Your task to perform on an android device: Go to sound settings Image 0: 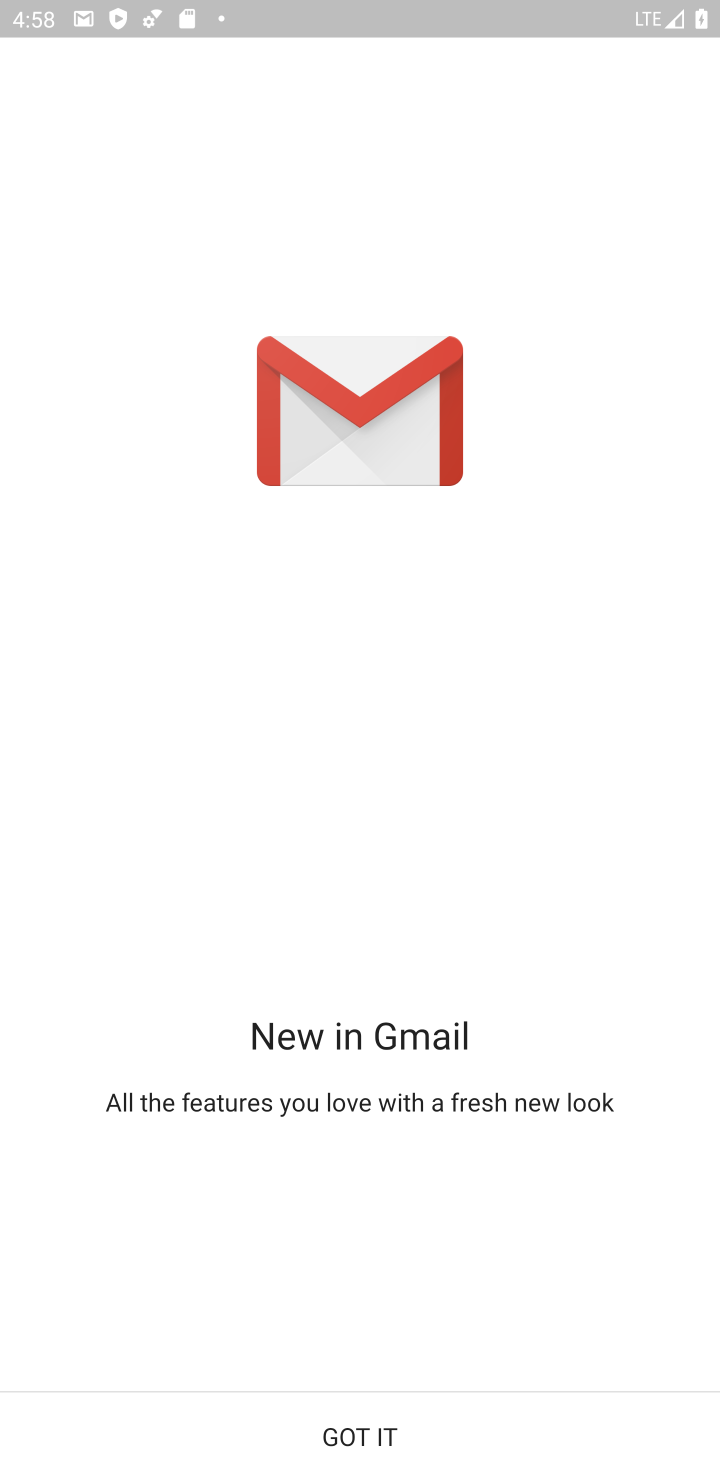
Step 0: press home button
Your task to perform on an android device: Go to sound settings Image 1: 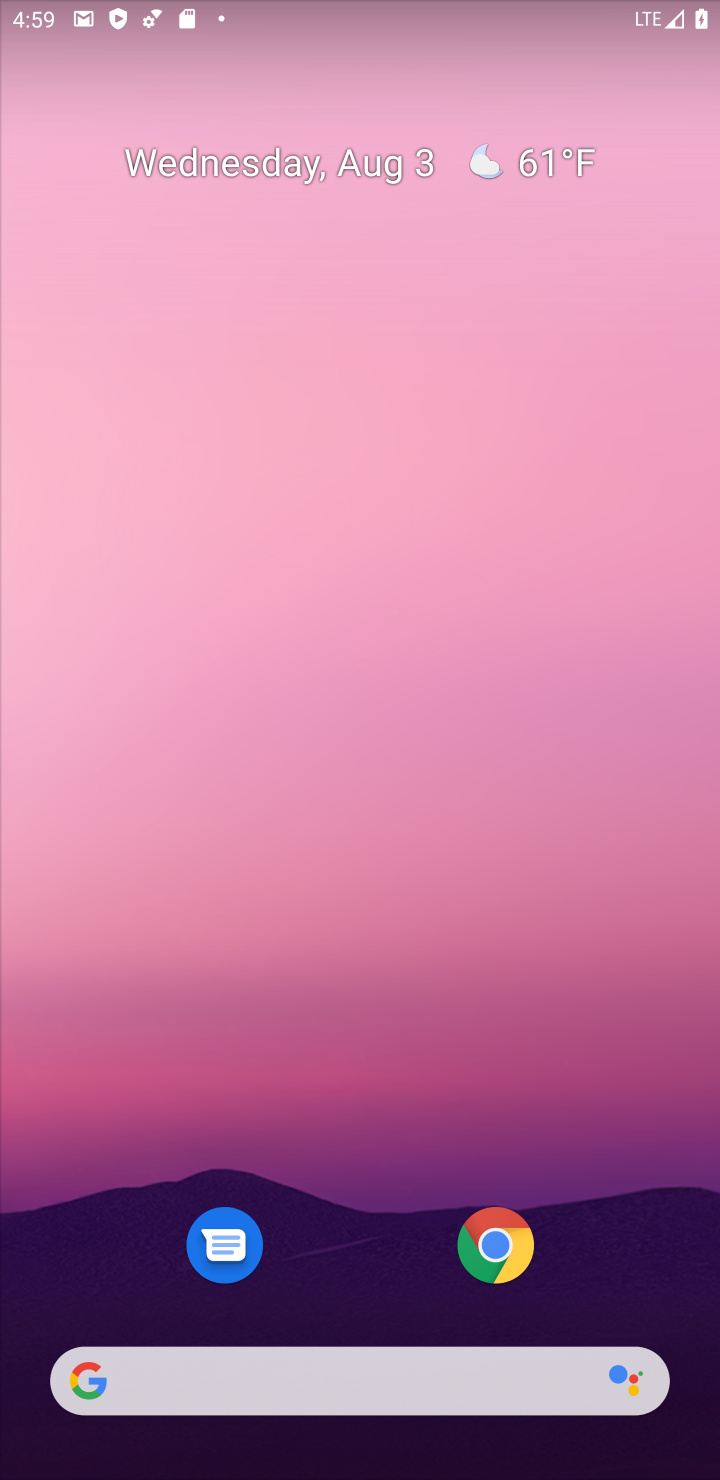
Step 1: drag from (309, 1368) to (357, 316)
Your task to perform on an android device: Go to sound settings Image 2: 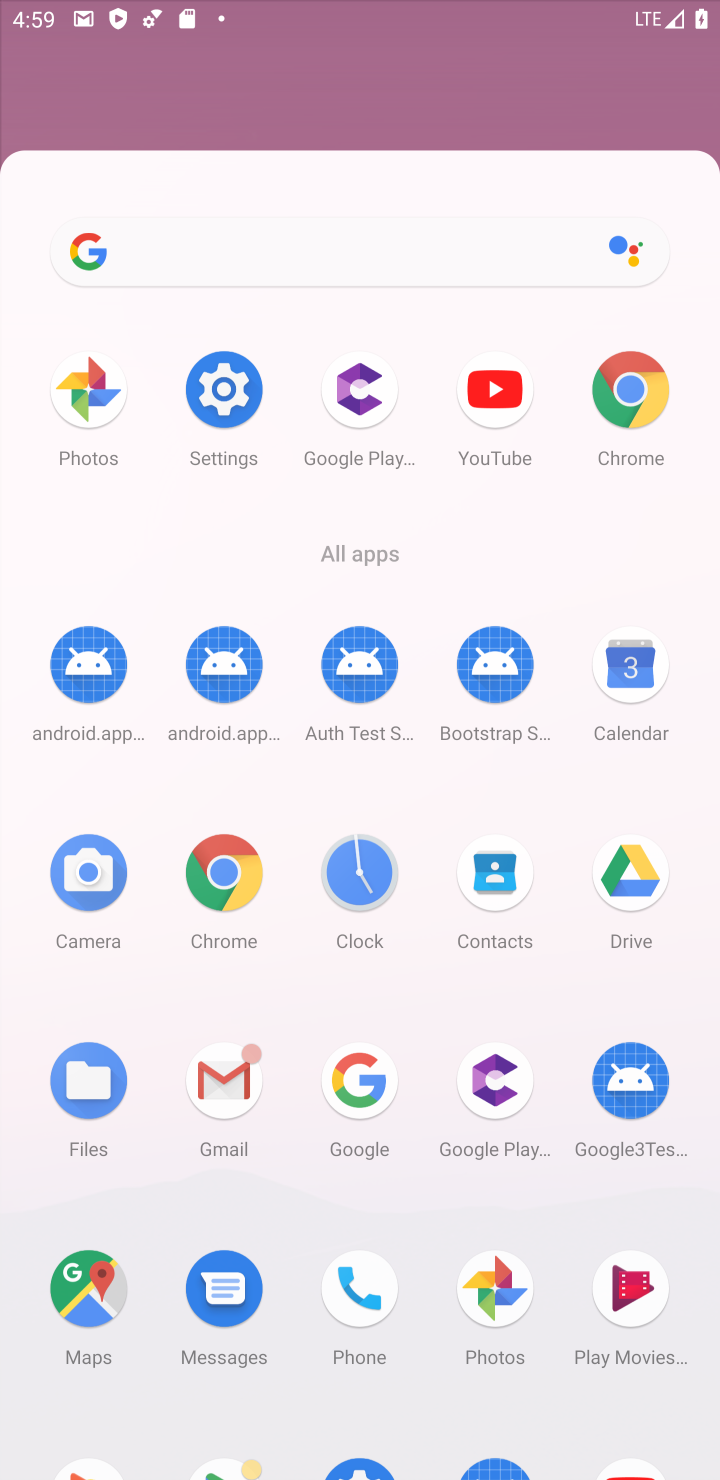
Step 2: drag from (379, 1370) to (344, 617)
Your task to perform on an android device: Go to sound settings Image 3: 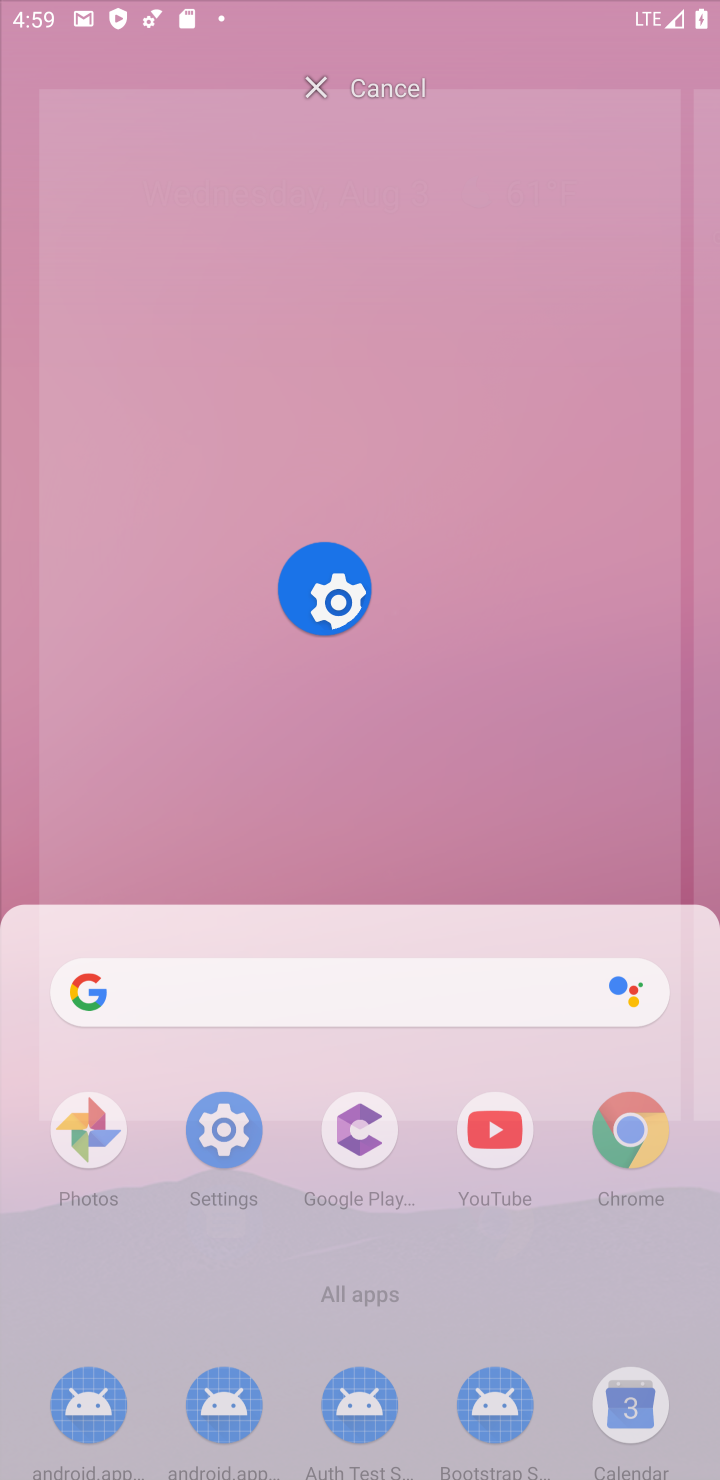
Step 3: click (352, 1318)
Your task to perform on an android device: Go to sound settings Image 4: 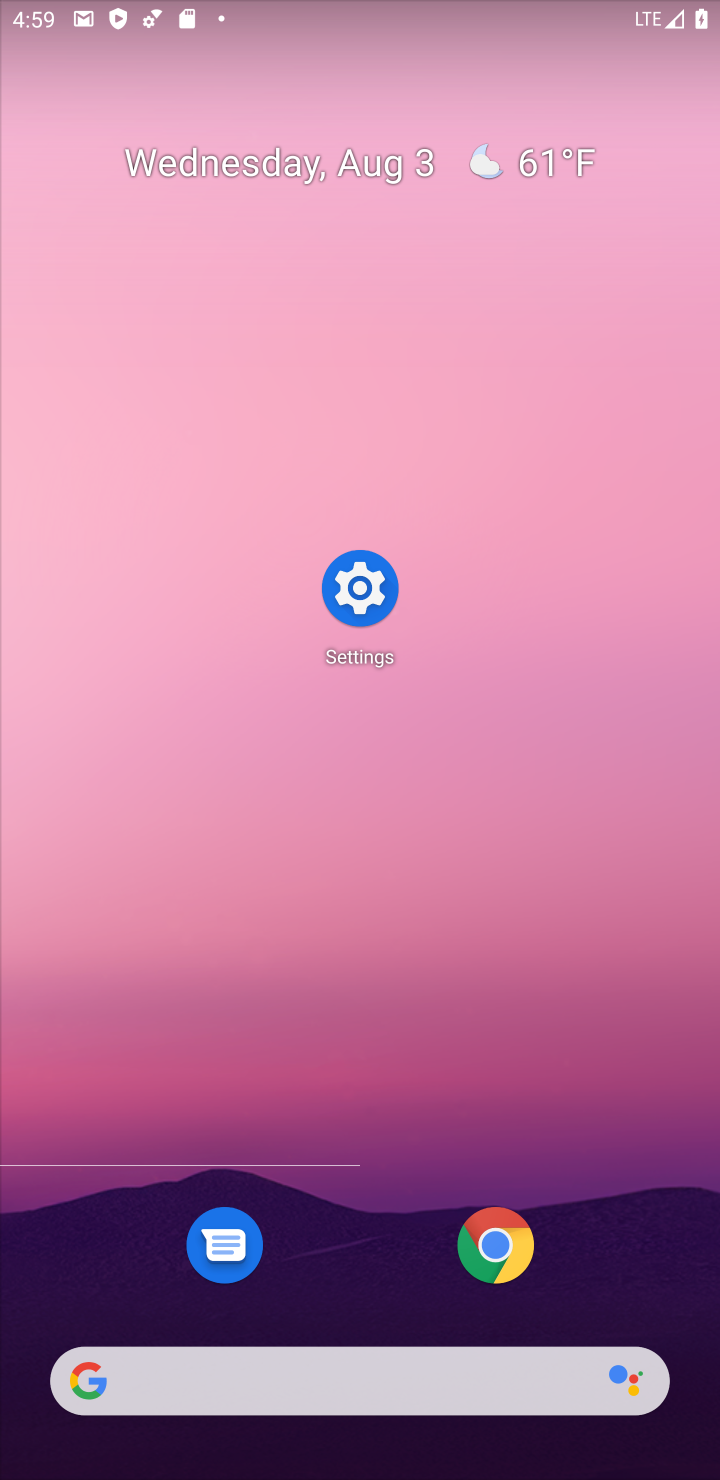
Step 4: click (332, 593)
Your task to perform on an android device: Go to sound settings Image 5: 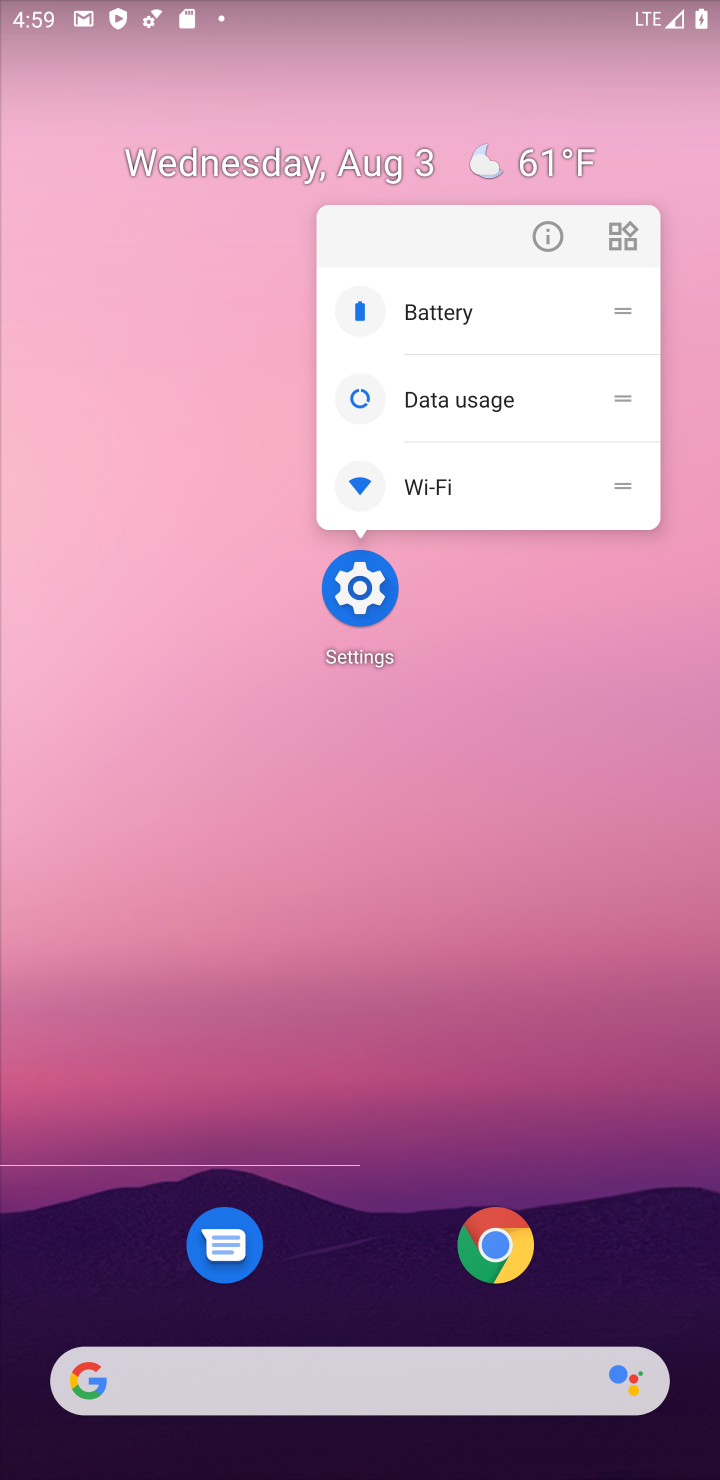
Step 5: click (332, 593)
Your task to perform on an android device: Go to sound settings Image 6: 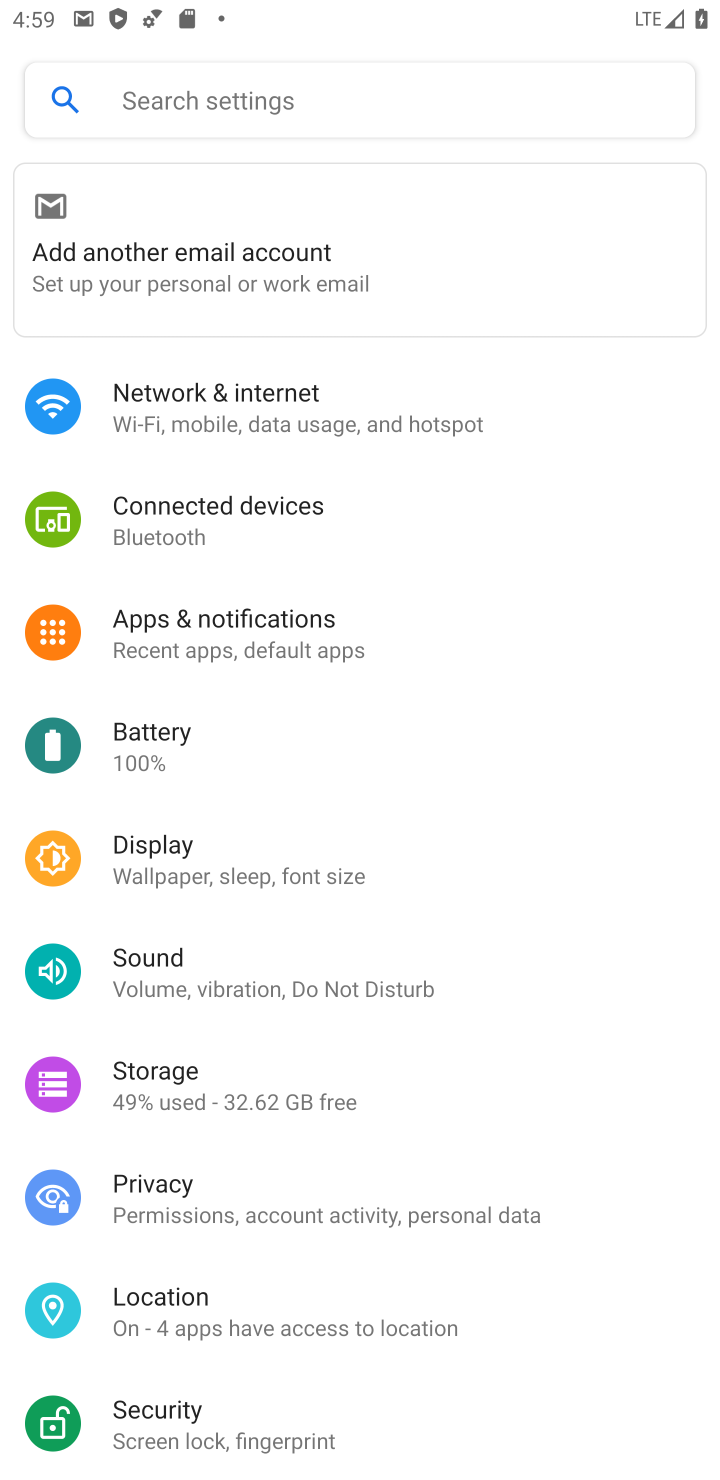
Step 6: click (159, 982)
Your task to perform on an android device: Go to sound settings Image 7: 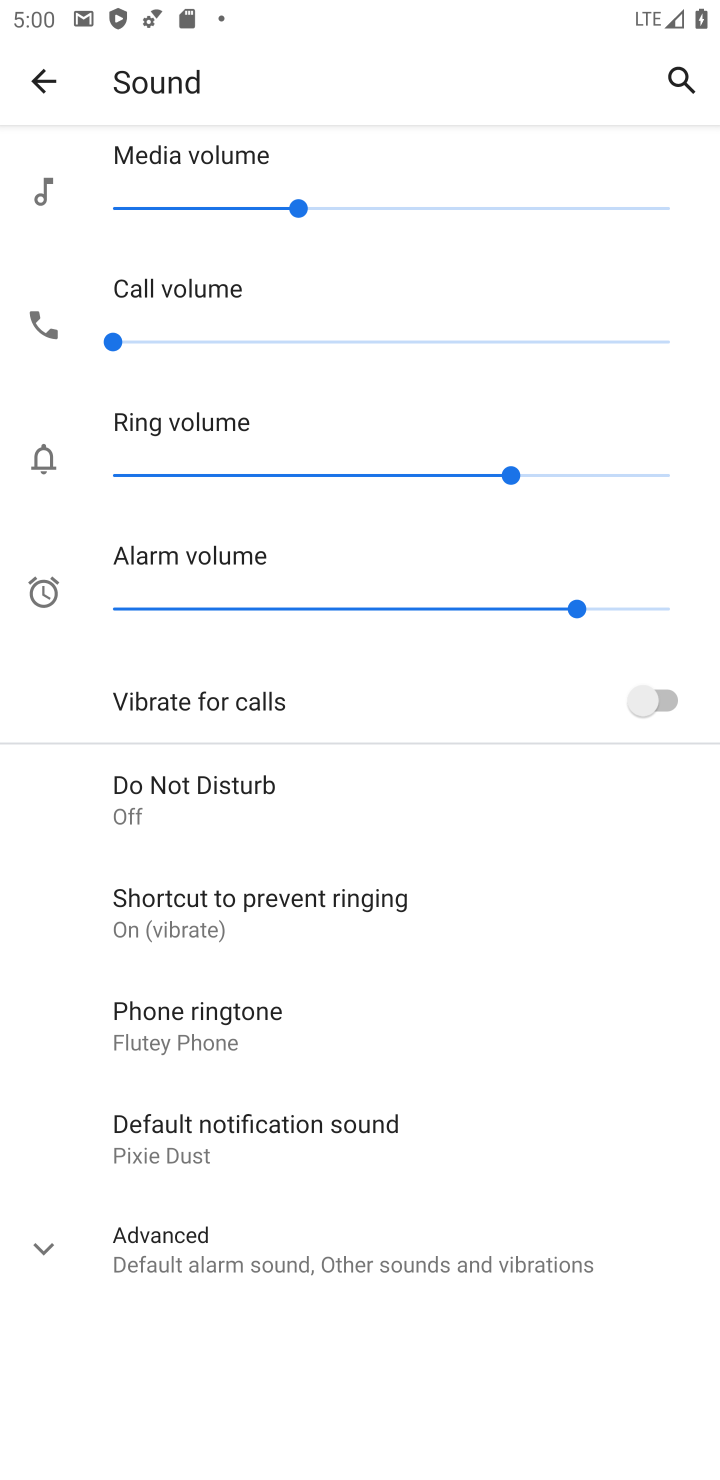
Step 7: task complete